Your task to perform on an android device: What's the weather going to be tomorrow? Image 0: 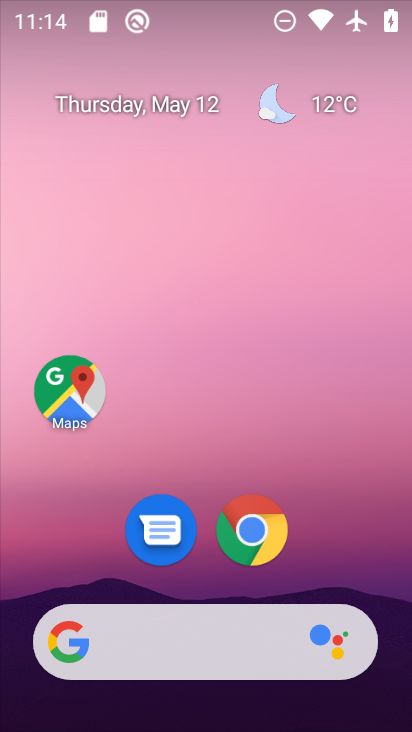
Step 0: click (330, 100)
Your task to perform on an android device: What's the weather going to be tomorrow? Image 1: 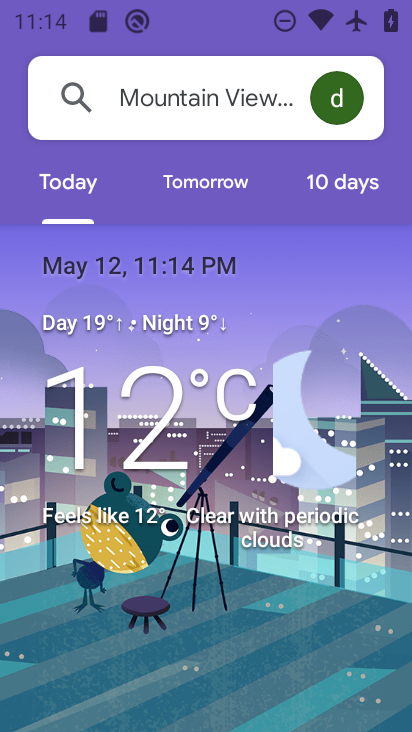
Step 1: click (195, 175)
Your task to perform on an android device: What's the weather going to be tomorrow? Image 2: 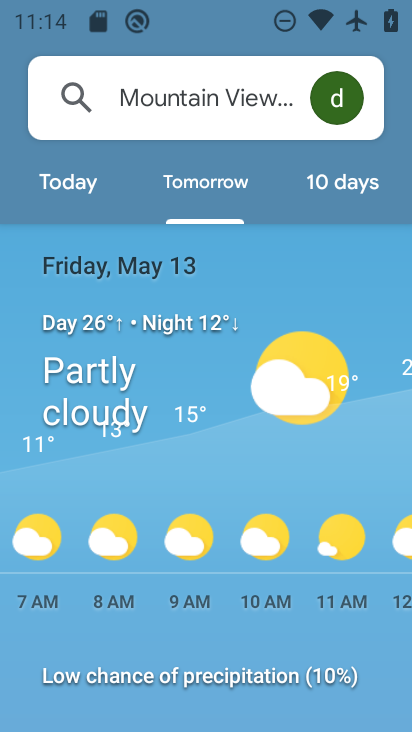
Step 2: task complete